Your task to perform on an android device: What's the weather? Image 0: 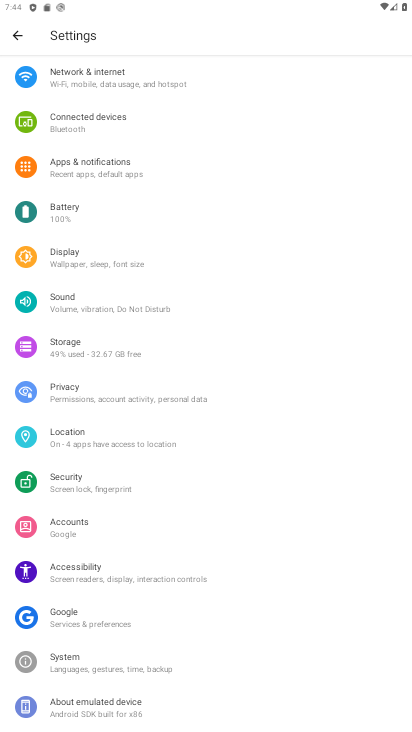
Step 0: press home button
Your task to perform on an android device: What's the weather? Image 1: 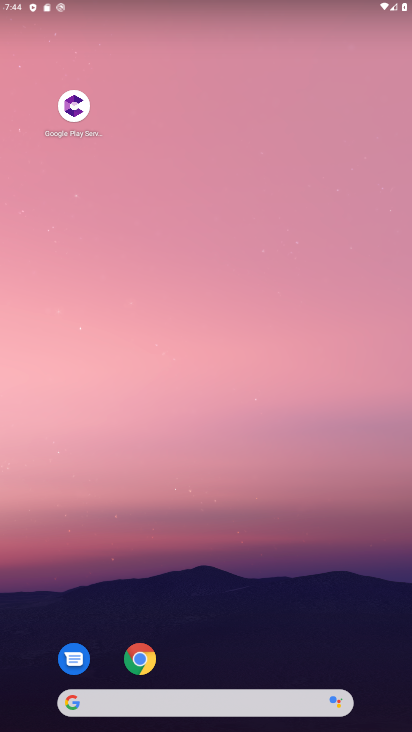
Step 1: click (143, 657)
Your task to perform on an android device: What's the weather? Image 2: 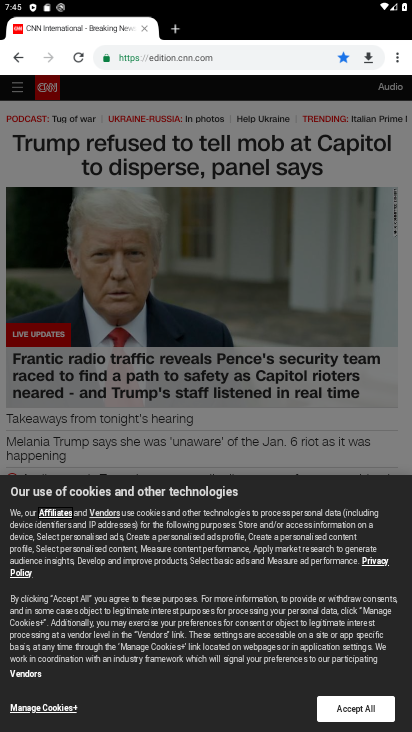
Step 2: click (235, 62)
Your task to perform on an android device: What's the weather? Image 3: 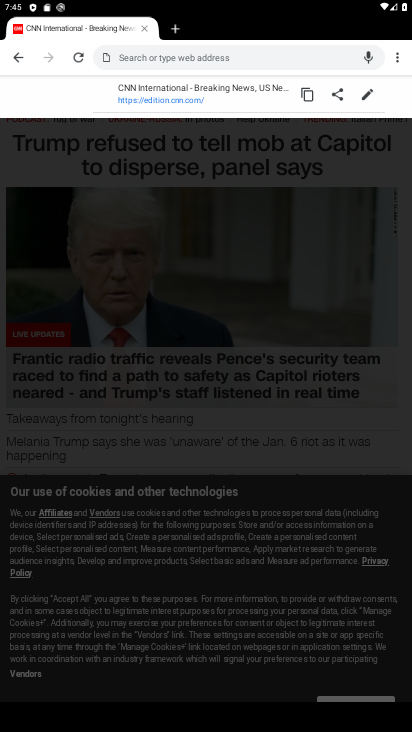
Step 3: type "What's the weather?"
Your task to perform on an android device: What's the weather? Image 4: 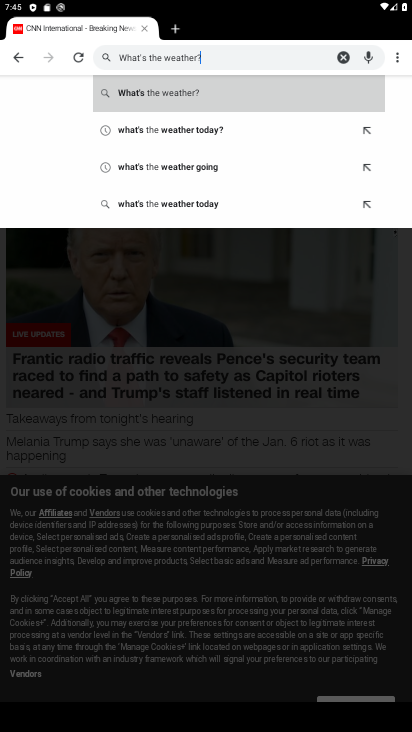
Step 4: click (174, 88)
Your task to perform on an android device: What's the weather? Image 5: 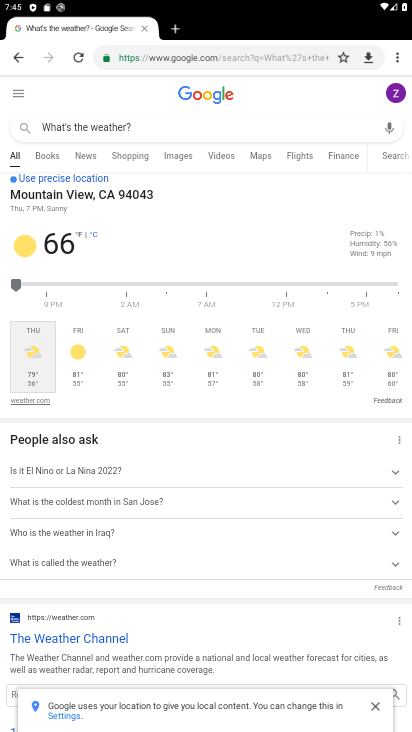
Step 5: task complete